Your task to perform on an android device: Go to display settings Image 0: 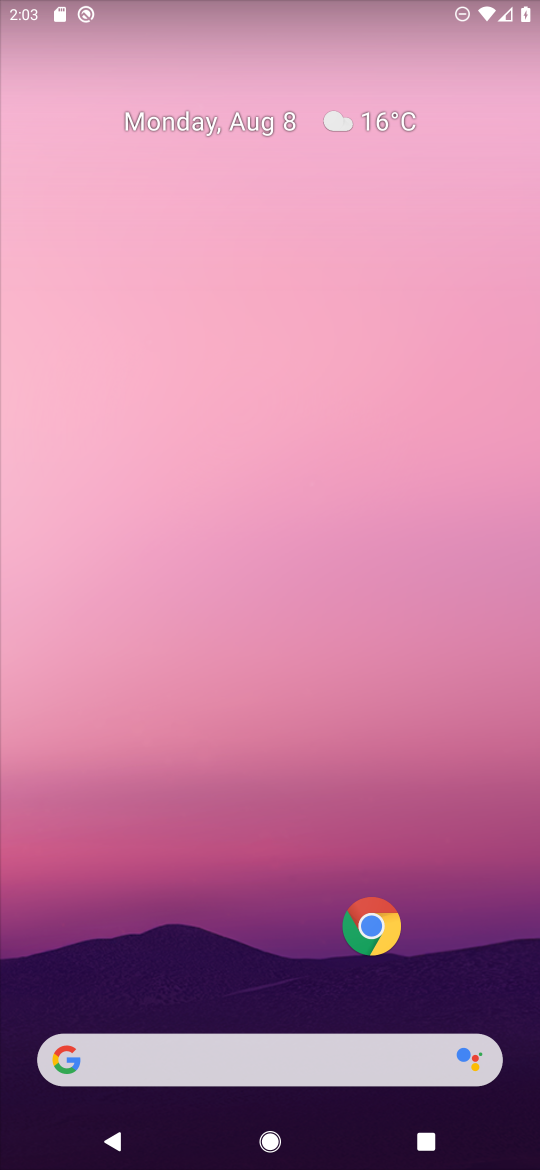
Step 0: drag from (128, 953) to (159, 176)
Your task to perform on an android device: Go to display settings Image 1: 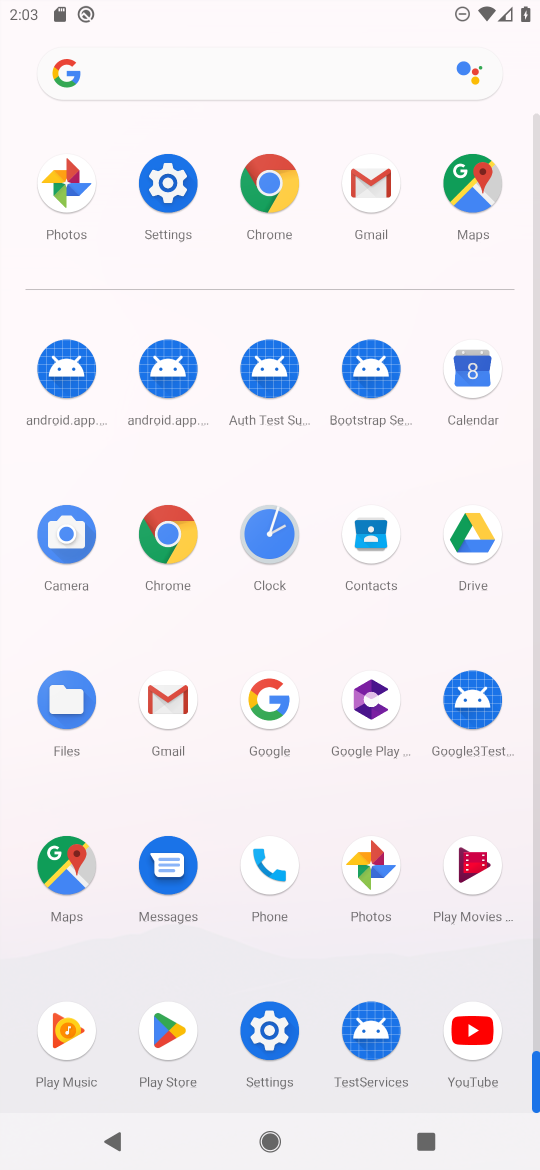
Step 1: click (159, 195)
Your task to perform on an android device: Go to display settings Image 2: 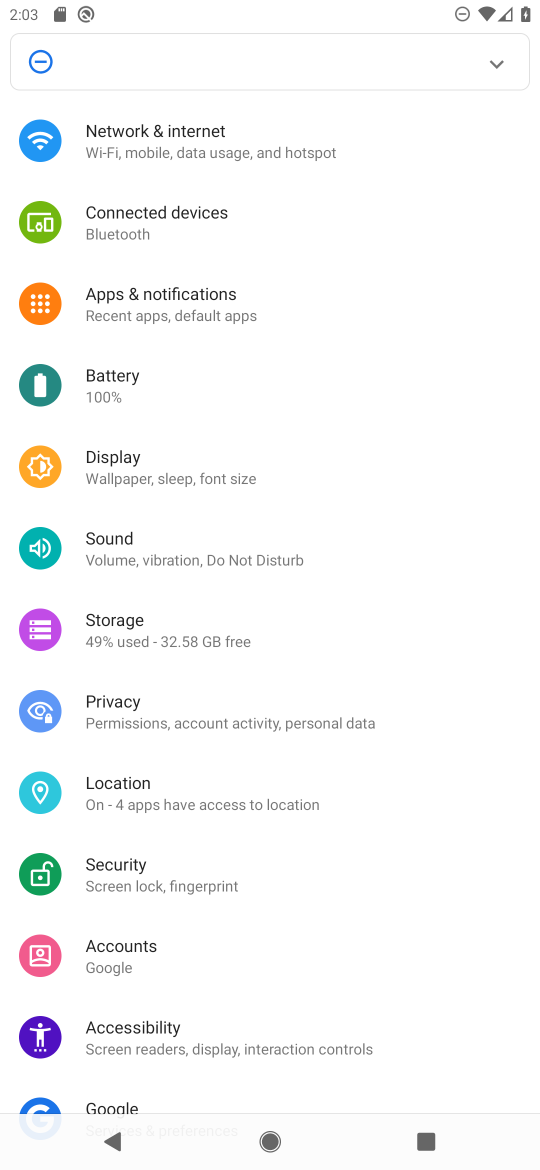
Step 2: click (148, 449)
Your task to perform on an android device: Go to display settings Image 3: 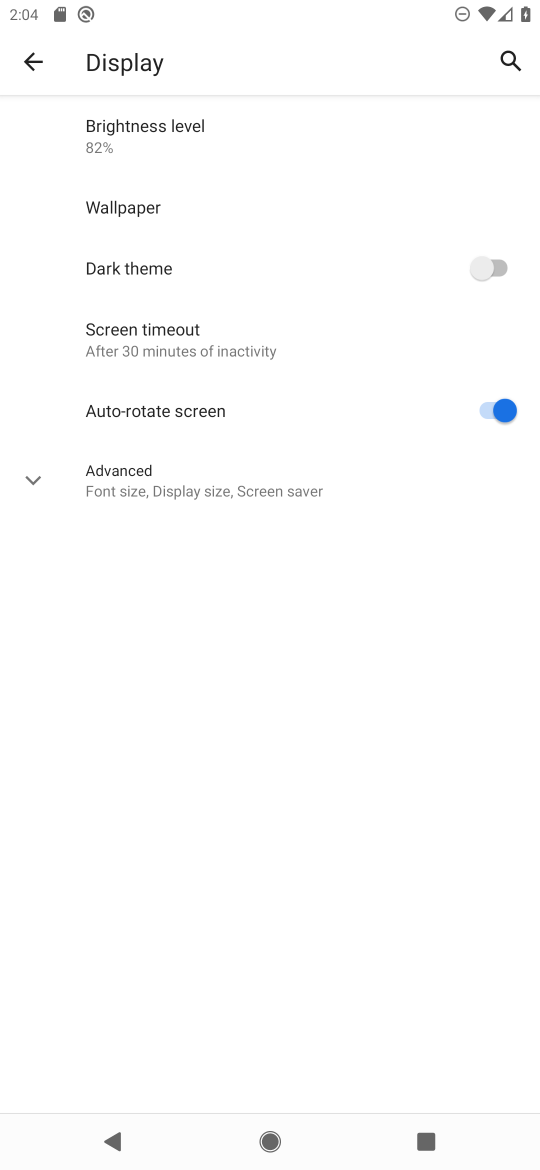
Step 3: task complete